Your task to perform on an android device: Open wifi settings Image 0: 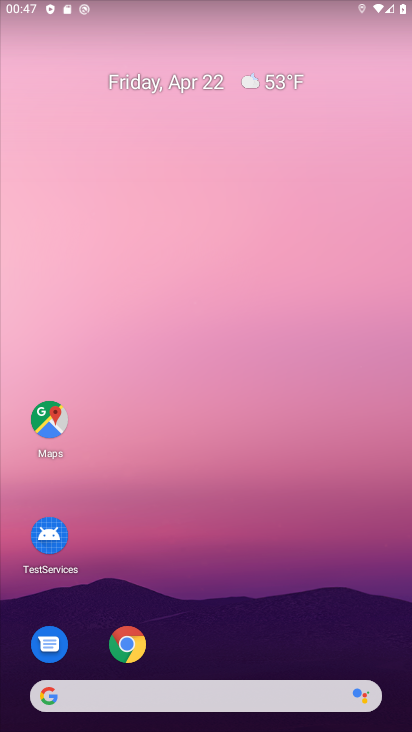
Step 0: drag from (267, 603) to (312, 96)
Your task to perform on an android device: Open wifi settings Image 1: 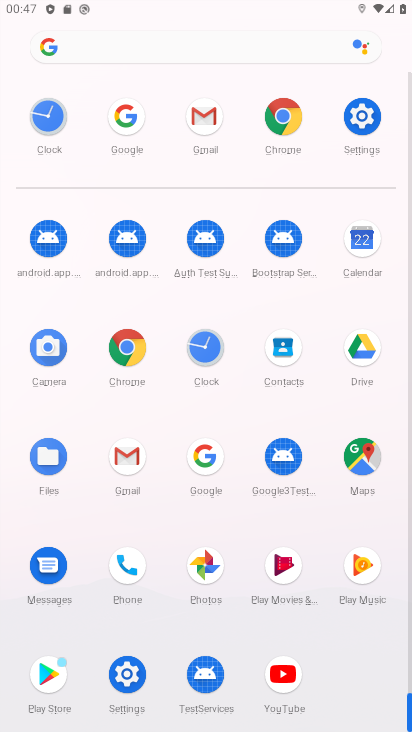
Step 1: click (370, 123)
Your task to perform on an android device: Open wifi settings Image 2: 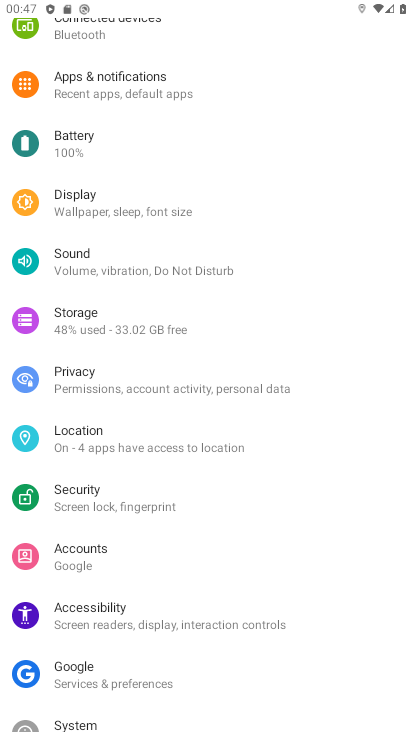
Step 2: drag from (198, 104) to (177, 609)
Your task to perform on an android device: Open wifi settings Image 3: 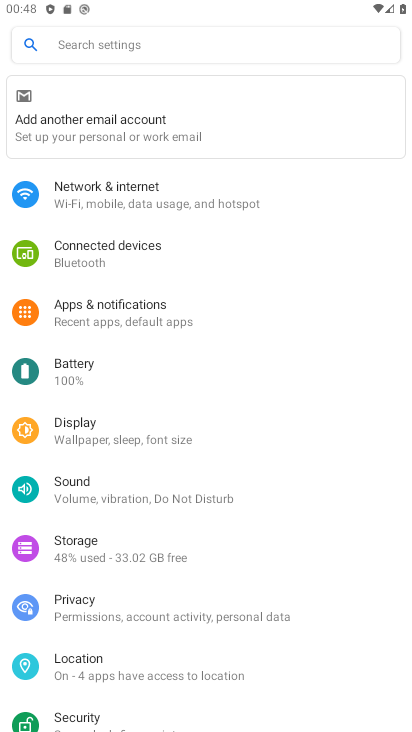
Step 3: click (175, 192)
Your task to perform on an android device: Open wifi settings Image 4: 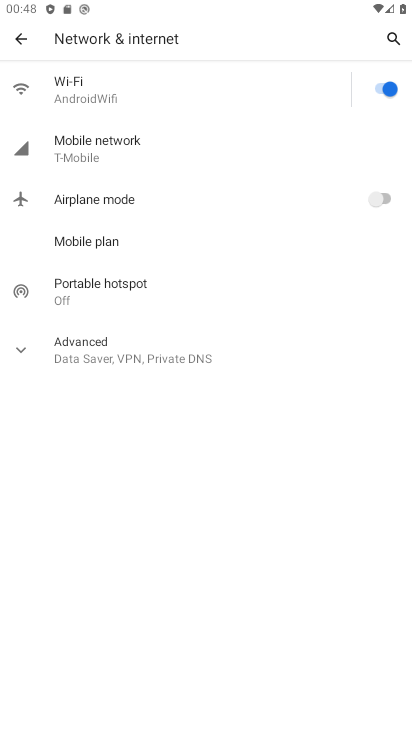
Step 4: click (135, 90)
Your task to perform on an android device: Open wifi settings Image 5: 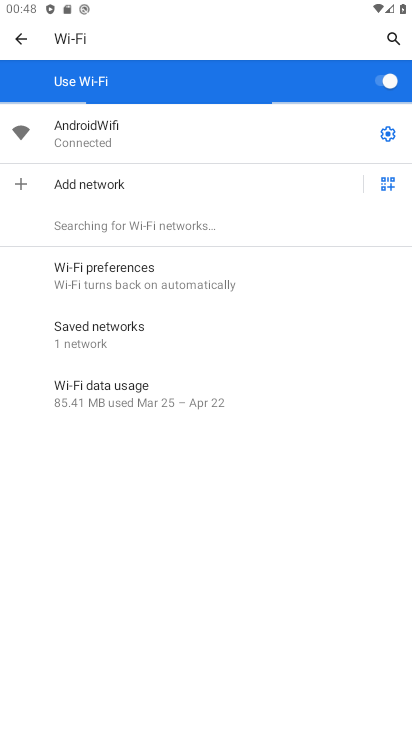
Step 5: click (388, 136)
Your task to perform on an android device: Open wifi settings Image 6: 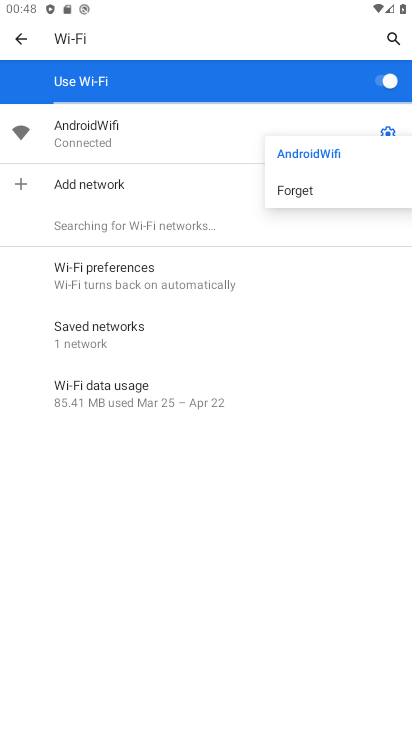
Step 6: click (383, 129)
Your task to perform on an android device: Open wifi settings Image 7: 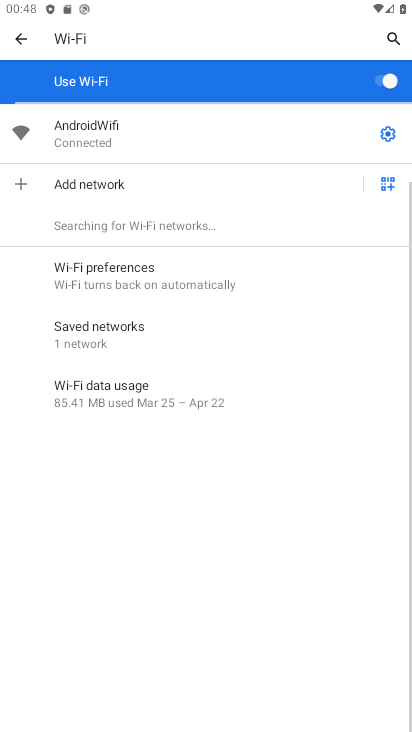
Step 7: click (385, 132)
Your task to perform on an android device: Open wifi settings Image 8: 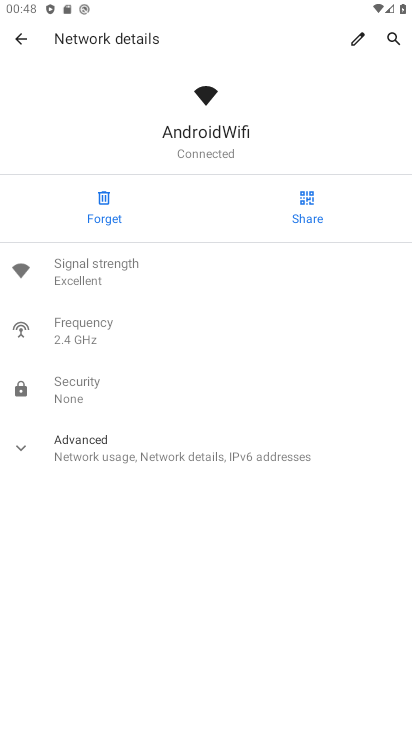
Step 8: task complete